Your task to perform on an android device: turn on the 24-hour format for clock Image 0: 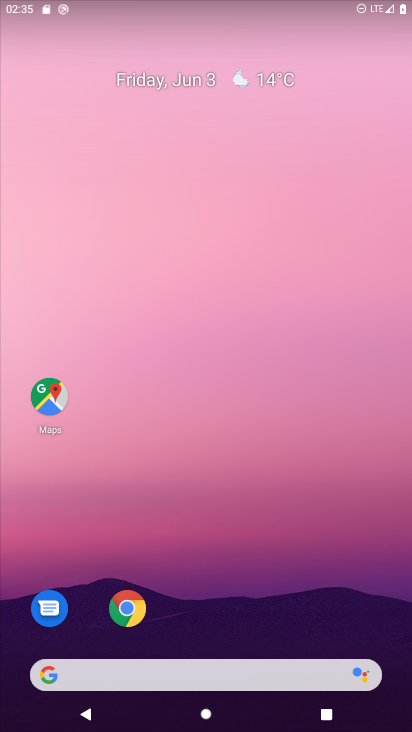
Step 0: drag from (227, 430) to (214, 60)
Your task to perform on an android device: turn on the 24-hour format for clock Image 1: 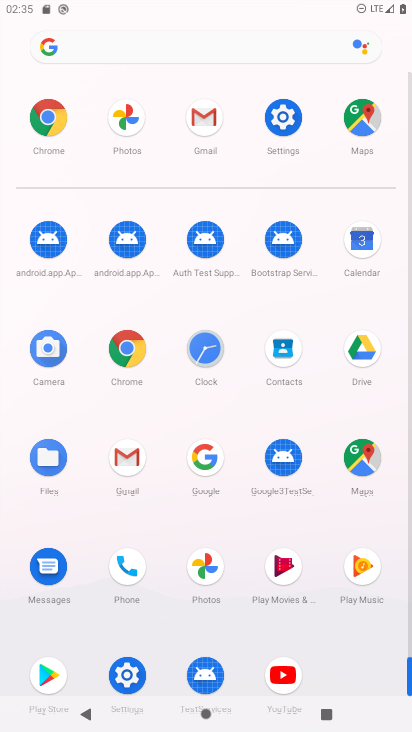
Step 1: click (209, 347)
Your task to perform on an android device: turn on the 24-hour format for clock Image 2: 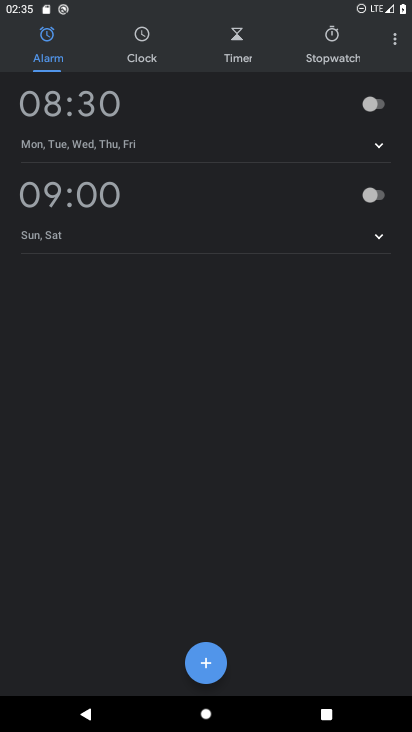
Step 2: drag from (399, 31) to (312, 91)
Your task to perform on an android device: turn on the 24-hour format for clock Image 3: 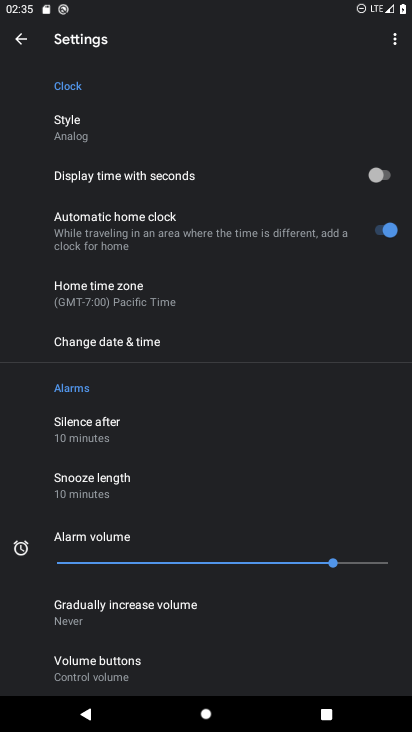
Step 3: click (114, 348)
Your task to perform on an android device: turn on the 24-hour format for clock Image 4: 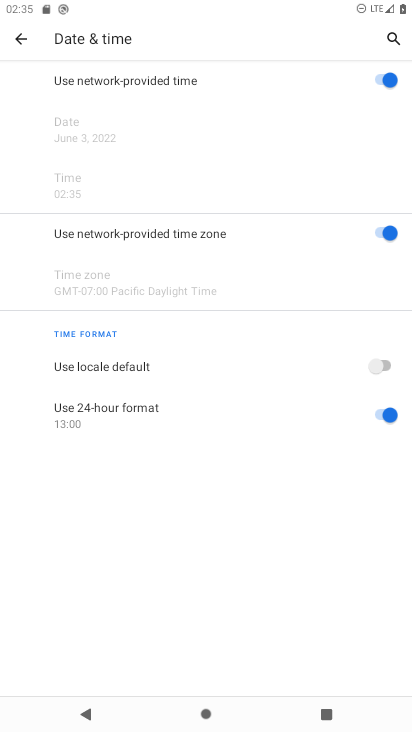
Step 4: task complete